Your task to perform on an android device: open app "Contacts" (install if not already installed) Image 0: 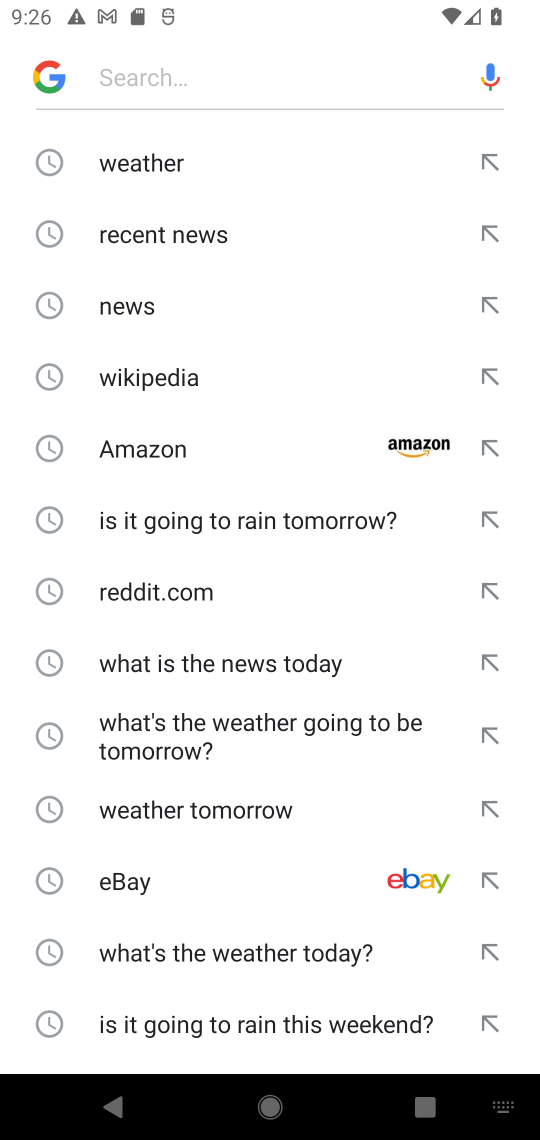
Step 0: press home button
Your task to perform on an android device: open app "Contacts" (install if not already installed) Image 1: 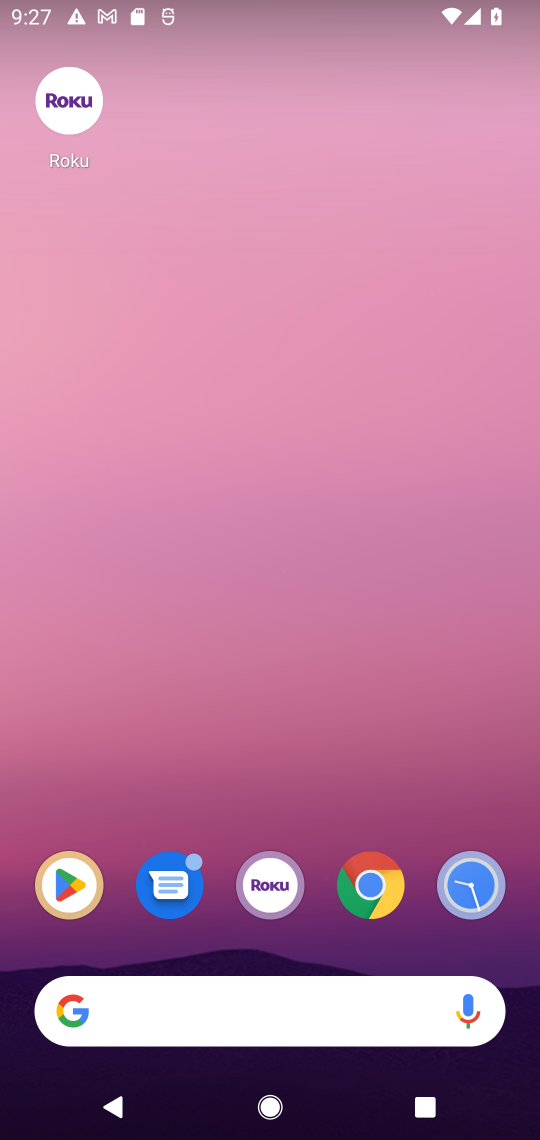
Step 1: drag from (312, 1133) to (312, 40)
Your task to perform on an android device: open app "Contacts" (install if not already installed) Image 2: 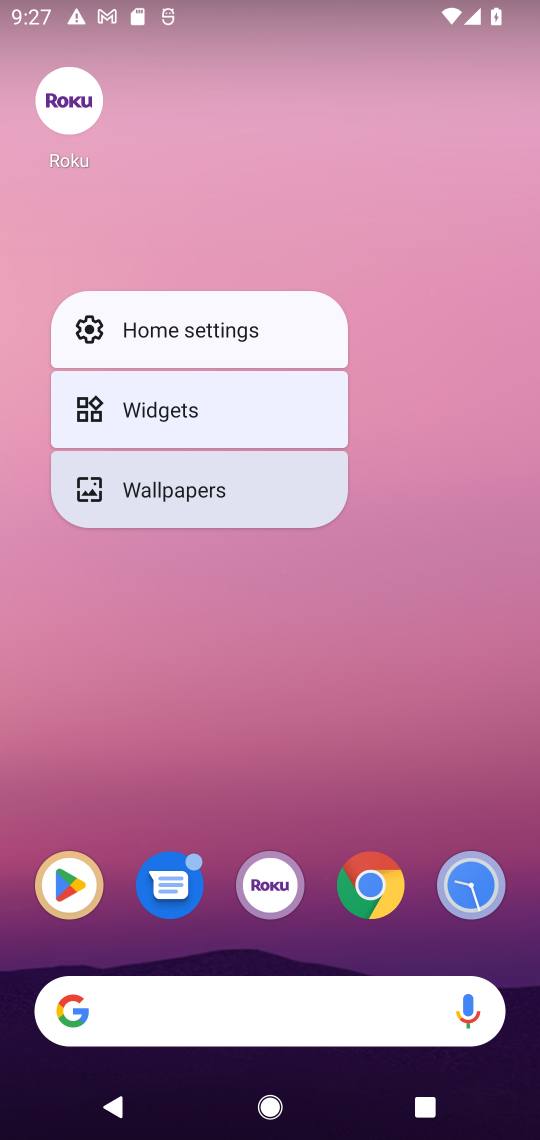
Step 2: click (282, 709)
Your task to perform on an android device: open app "Contacts" (install if not already installed) Image 3: 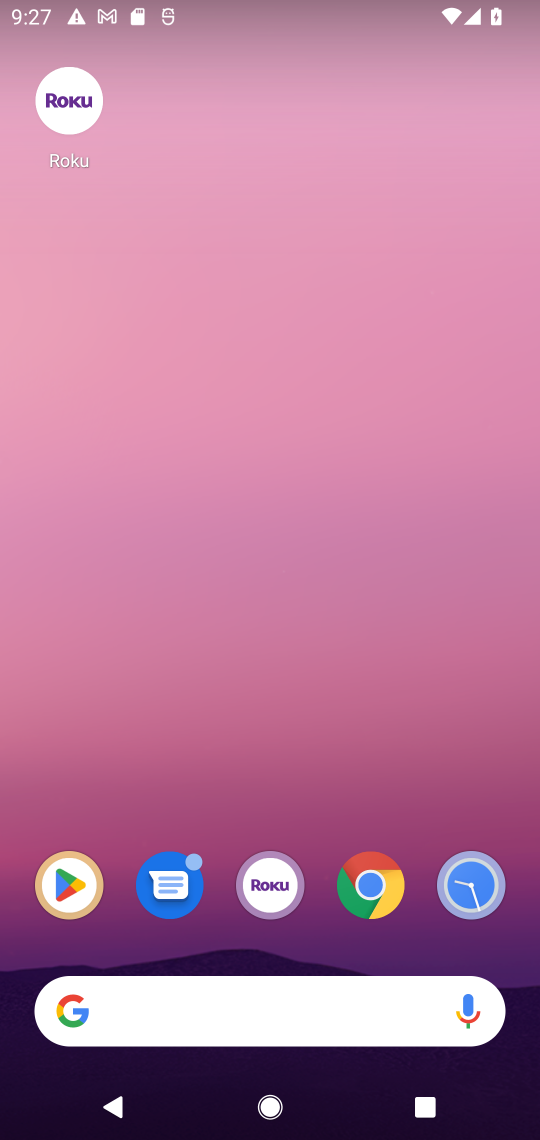
Step 3: drag from (293, 1084) to (281, 288)
Your task to perform on an android device: open app "Contacts" (install if not already installed) Image 4: 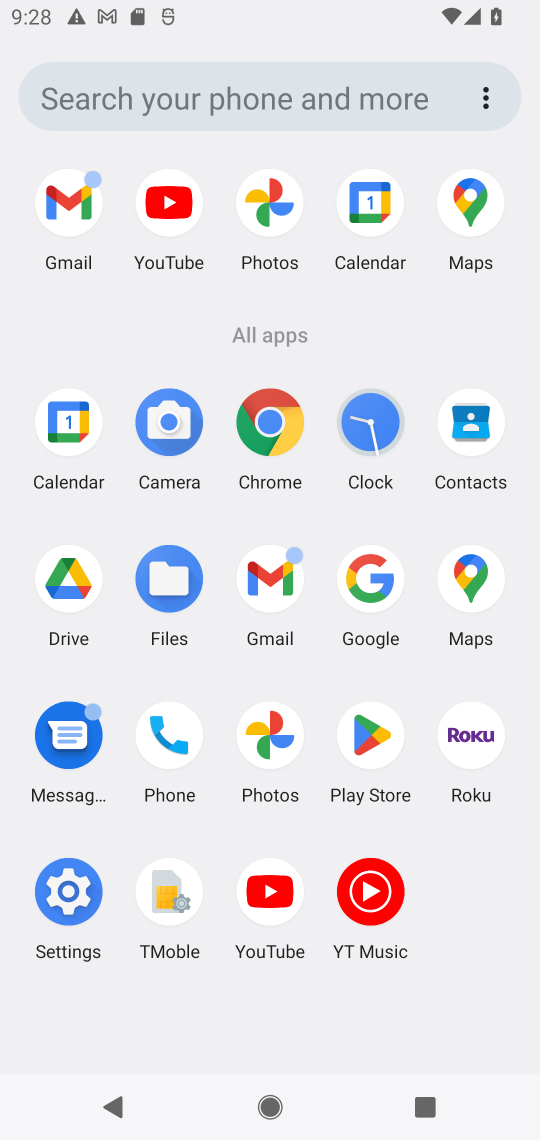
Step 4: click (461, 426)
Your task to perform on an android device: open app "Contacts" (install if not already installed) Image 5: 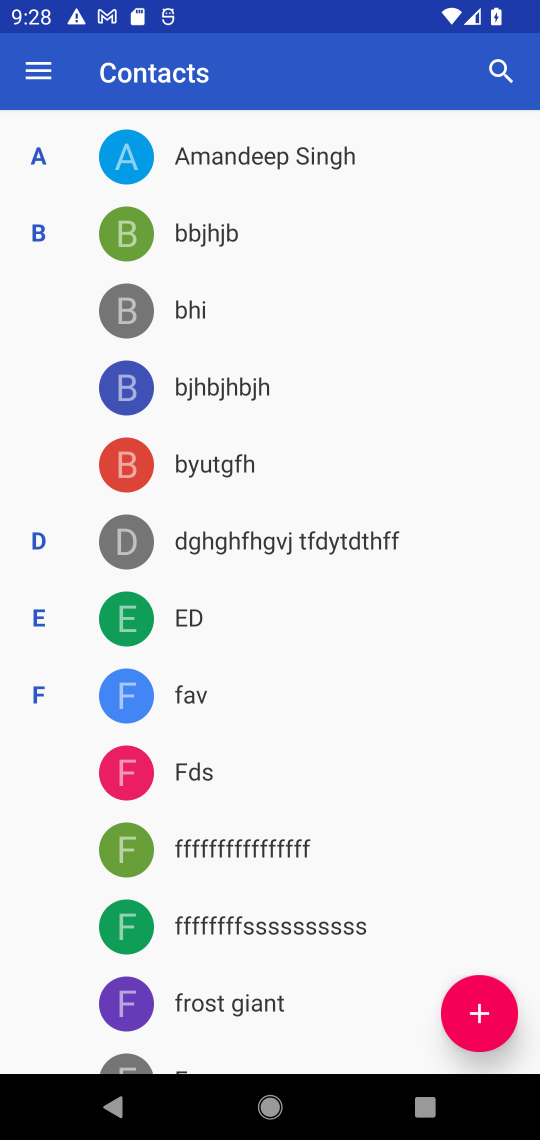
Step 5: task complete